Your task to perform on an android device: change notification settings in the gmail app Image 0: 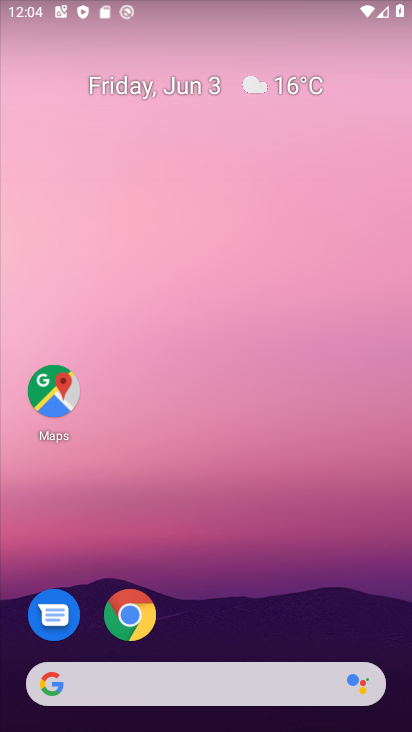
Step 0: drag from (172, 660) to (211, 295)
Your task to perform on an android device: change notification settings in the gmail app Image 1: 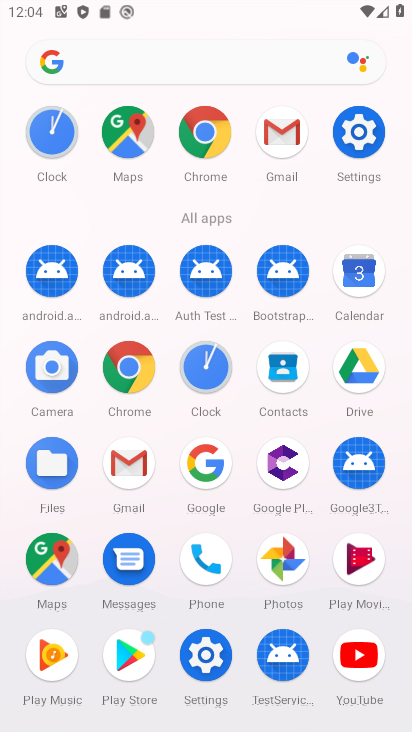
Step 1: click (131, 449)
Your task to perform on an android device: change notification settings in the gmail app Image 2: 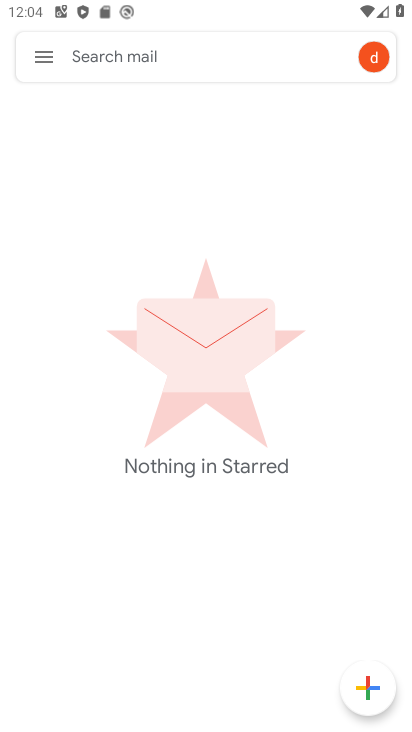
Step 2: click (35, 46)
Your task to perform on an android device: change notification settings in the gmail app Image 3: 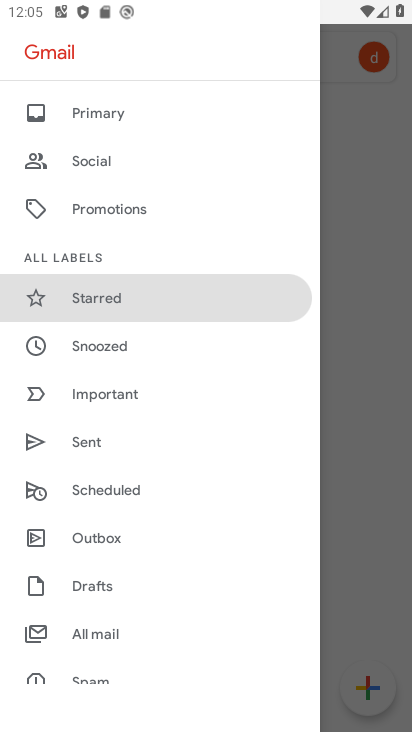
Step 3: drag from (99, 643) to (136, 176)
Your task to perform on an android device: change notification settings in the gmail app Image 4: 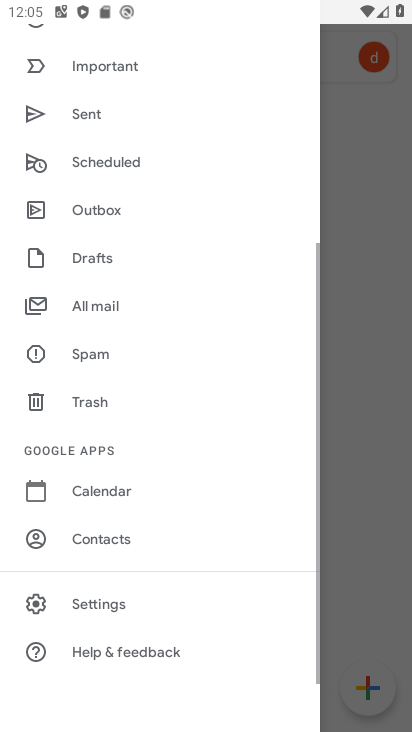
Step 4: click (75, 604)
Your task to perform on an android device: change notification settings in the gmail app Image 5: 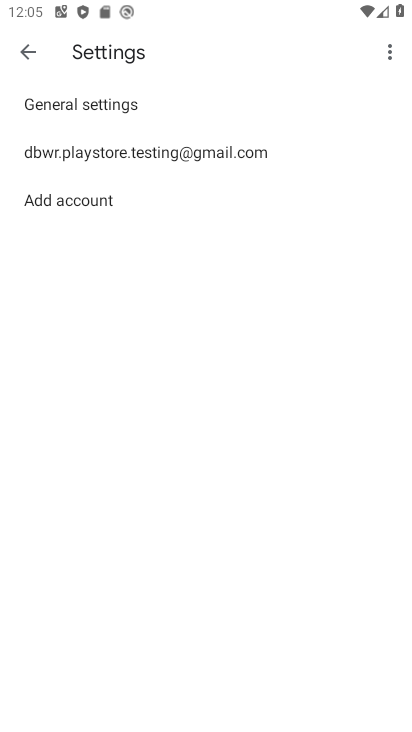
Step 5: click (124, 148)
Your task to perform on an android device: change notification settings in the gmail app Image 6: 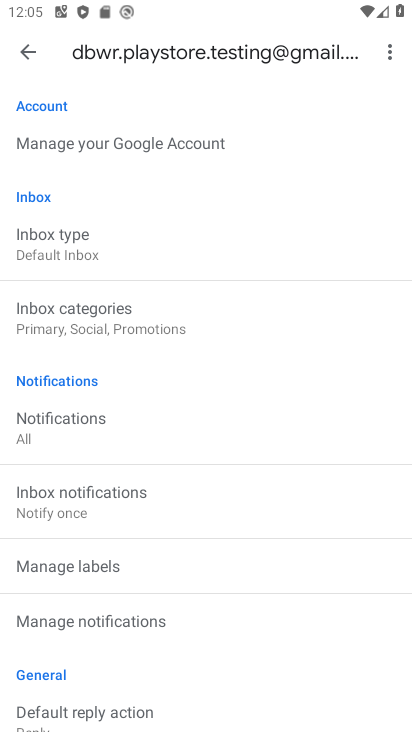
Step 6: click (119, 429)
Your task to perform on an android device: change notification settings in the gmail app Image 7: 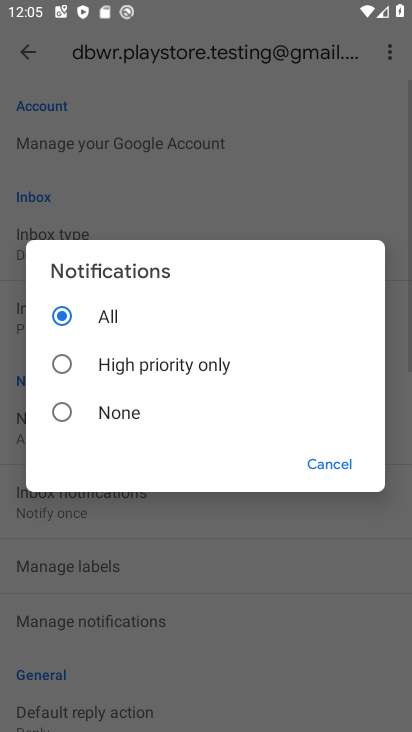
Step 7: click (100, 426)
Your task to perform on an android device: change notification settings in the gmail app Image 8: 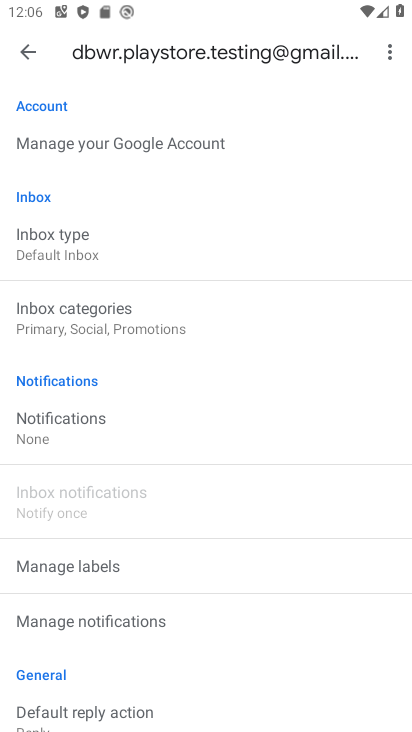
Step 8: task complete